Your task to perform on an android device: search for starred emails in the gmail app Image 0: 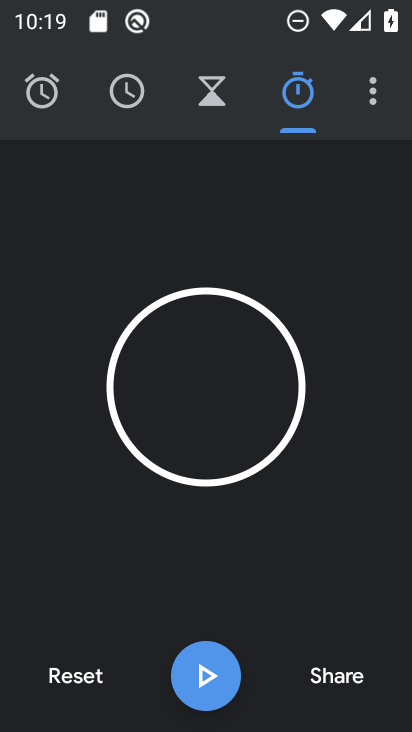
Step 0: press home button
Your task to perform on an android device: search for starred emails in the gmail app Image 1: 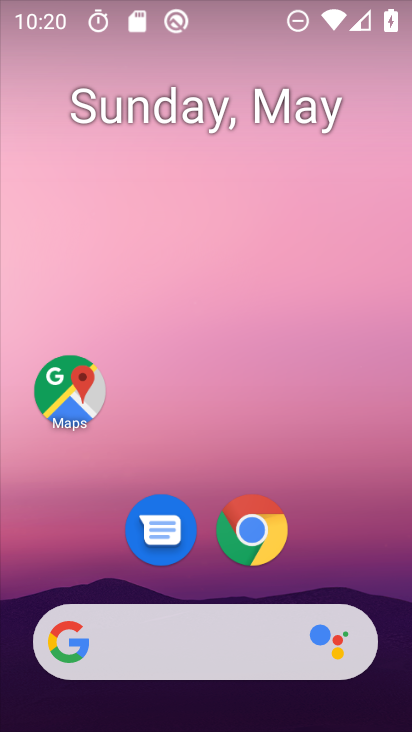
Step 1: drag from (255, 656) to (268, 111)
Your task to perform on an android device: search for starred emails in the gmail app Image 2: 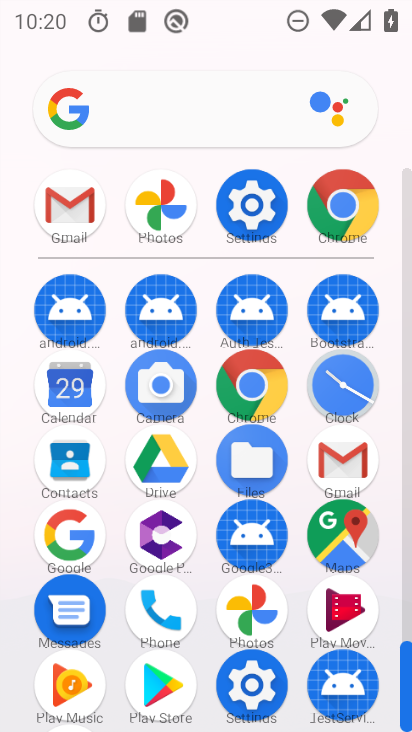
Step 2: click (71, 234)
Your task to perform on an android device: search for starred emails in the gmail app Image 3: 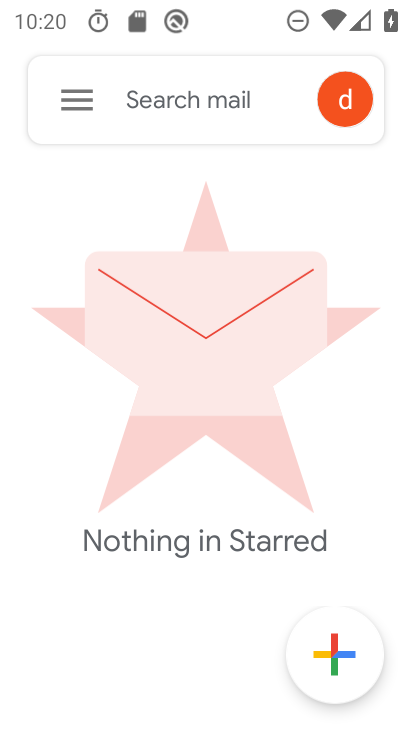
Step 3: click (37, 108)
Your task to perform on an android device: search for starred emails in the gmail app Image 4: 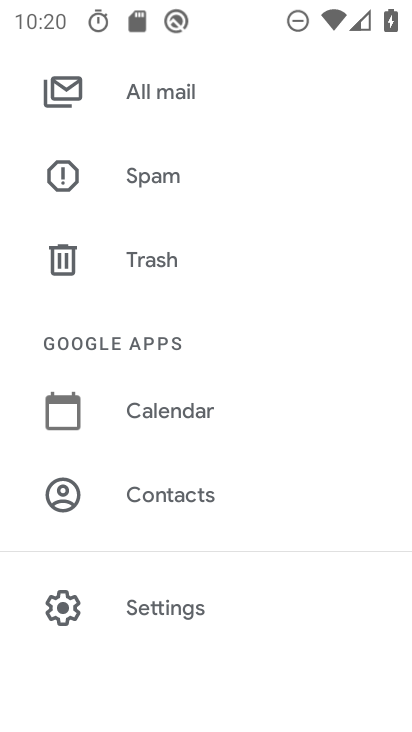
Step 4: drag from (155, 100) to (216, 474)
Your task to perform on an android device: search for starred emails in the gmail app Image 5: 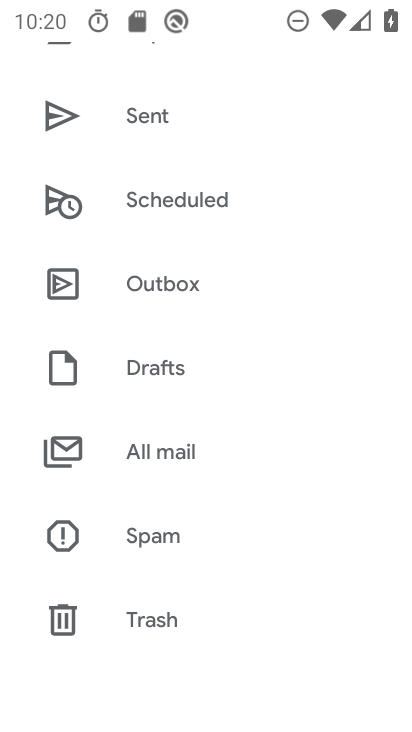
Step 5: drag from (154, 94) to (170, 335)
Your task to perform on an android device: search for starred emails in the gmail app Image 6: 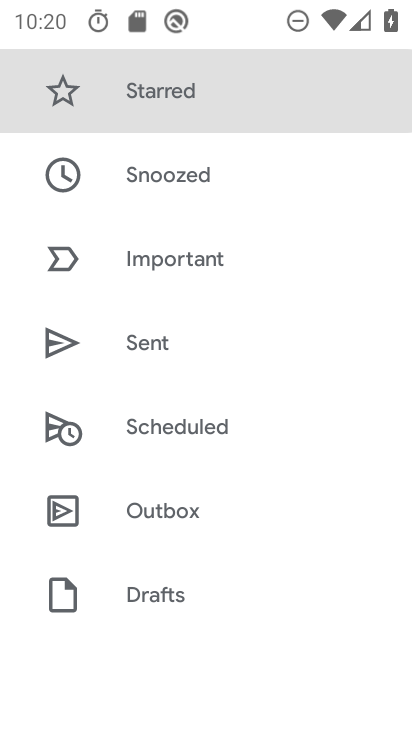
Step 6: click (145, 103)
Your task to perform on an android device: search for starred emails in the gmail app Image 7: 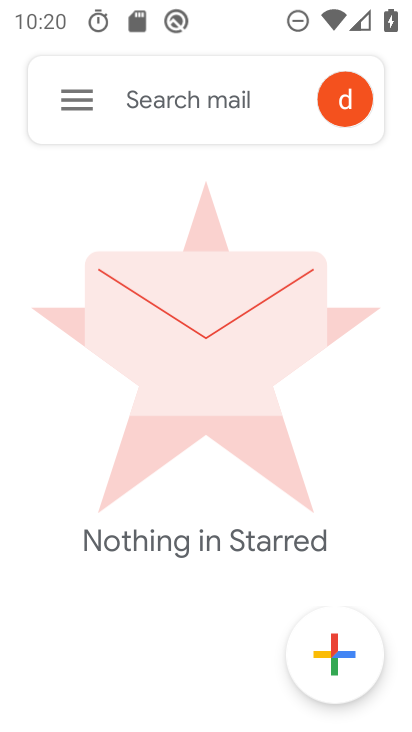
Step 7: task complete